Your task to perform on an android device: turn on wifi Image 0: 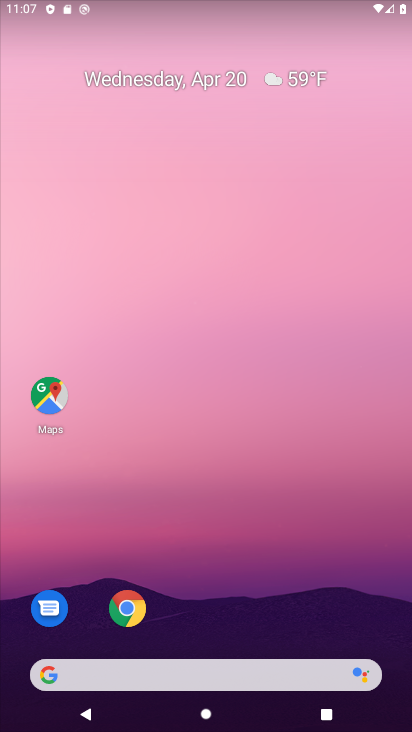
Step 0: drag from (207, 527) to (170, 79)
Your task to perform on an android device: turn on wifi Image 1: 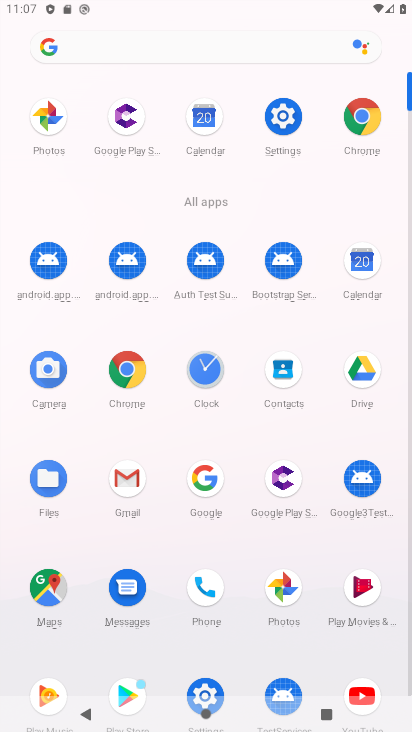
Step 1: click (283, 117)
Your task to perform on an android device: turn on wifi Image 2: 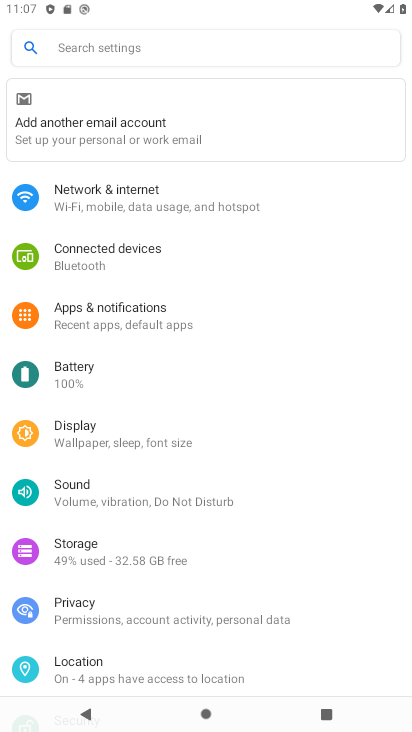
Step 2: click (156, 201)
Your task to perform on an android device: turn on wifi Image 3: 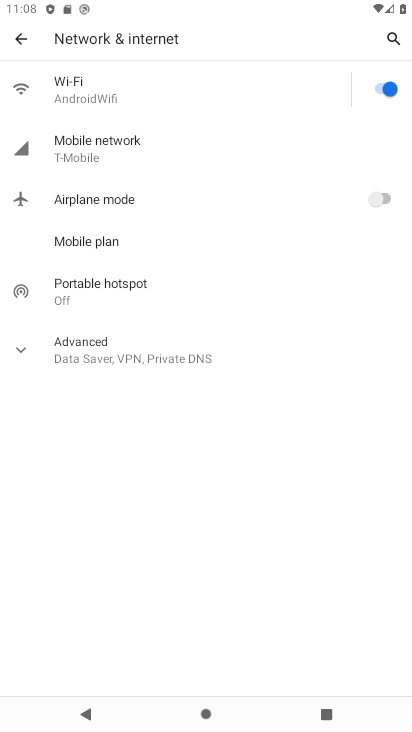
Step 3: task complete